Your task to perform on an android device: turn on location history Image 0: 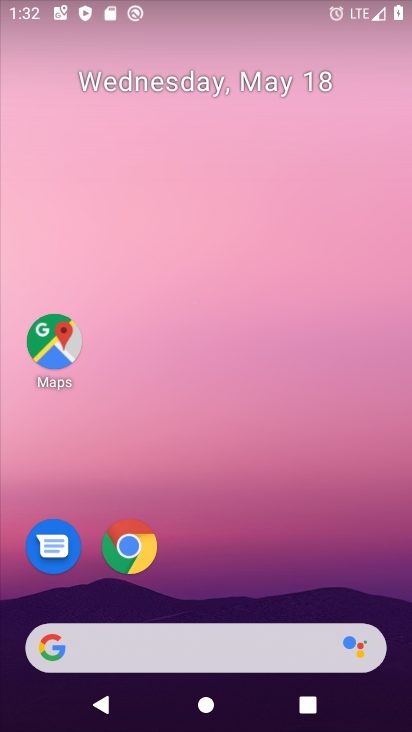
Step 0: drag from (199, 587) to (231, 314)
Your task to perform on an android device: turn on location history Image 1: 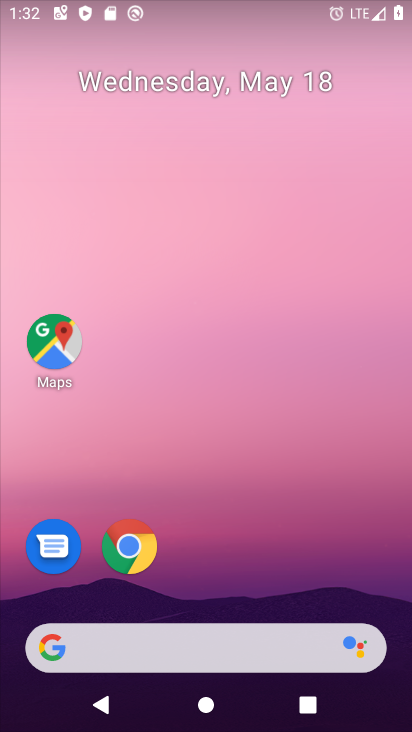
Step 1: drag from (209, 689) to (236, 170)
Your task to perform on an android device: turn on location history Image 2: 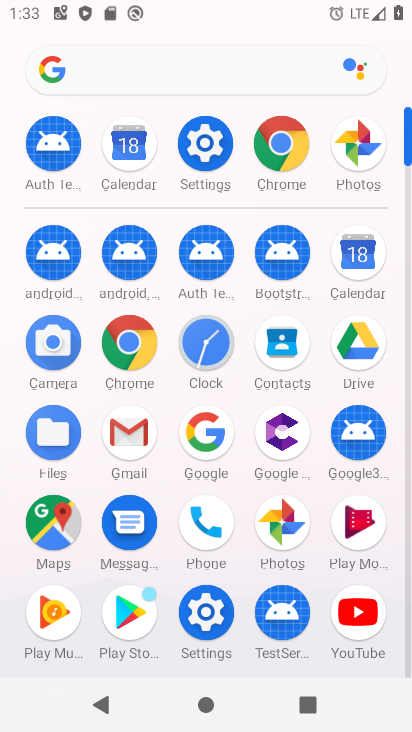
Step 2: click (205, 167)
Your task to perform on an android device: turn on location history Image 3: 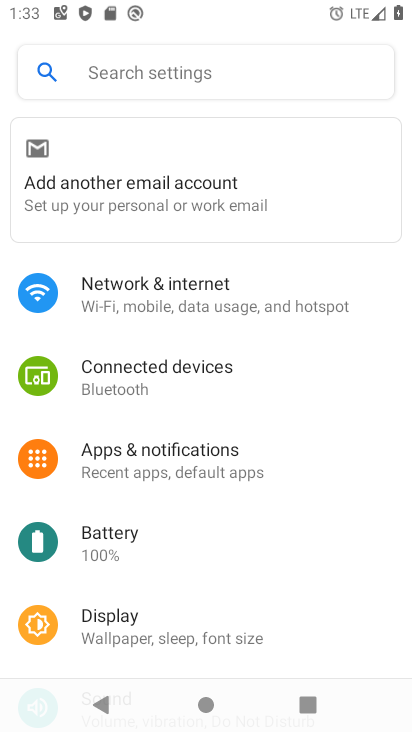
Step 3: drag from (209, 453) to (210, 322)
Your task to perform on an android device: turn on location history Image 4: 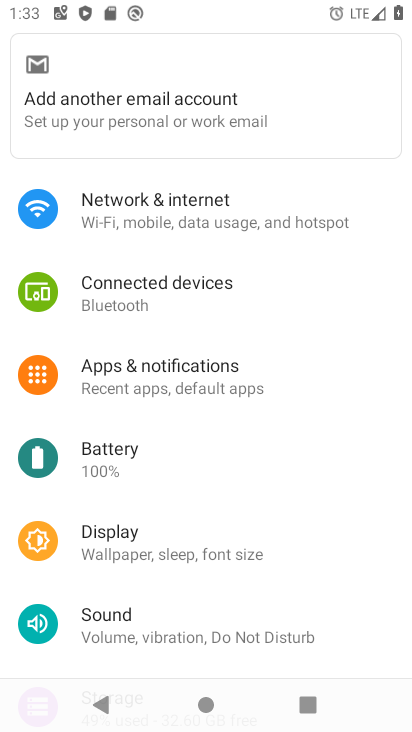
Step 4: drag from (186, 419) to (181, 304)
Your task to perform on an android device: turn on location history Image 5: 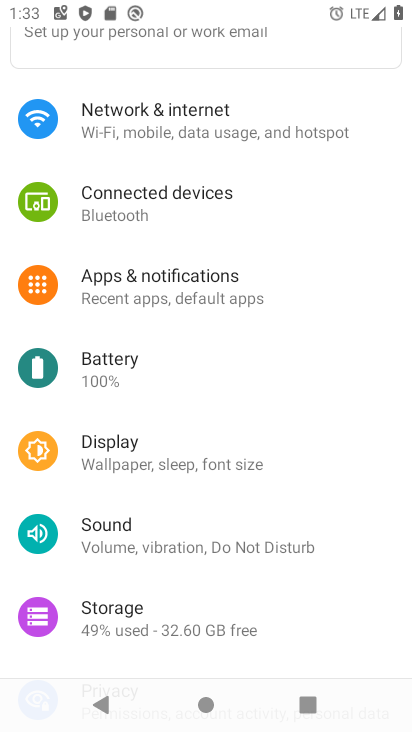
Step 5: drag from (159, 501) to (159, 355)
Your task to perform on an android device: turn on location history Image 6: 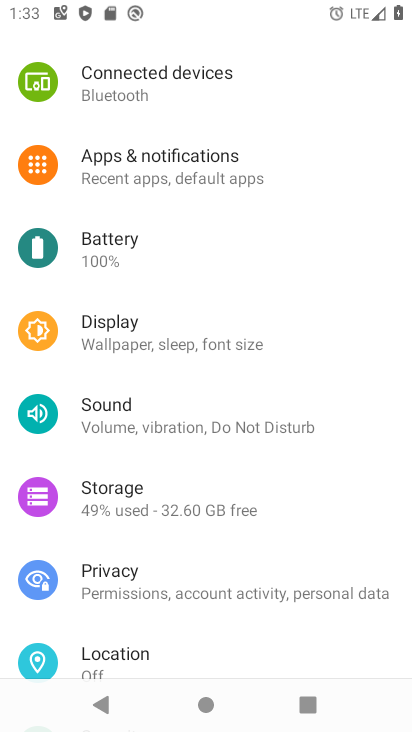
Step 6: drag from (165, 516) to (166, 300)
Your task to perform on an android device: turn on location history Image 7: 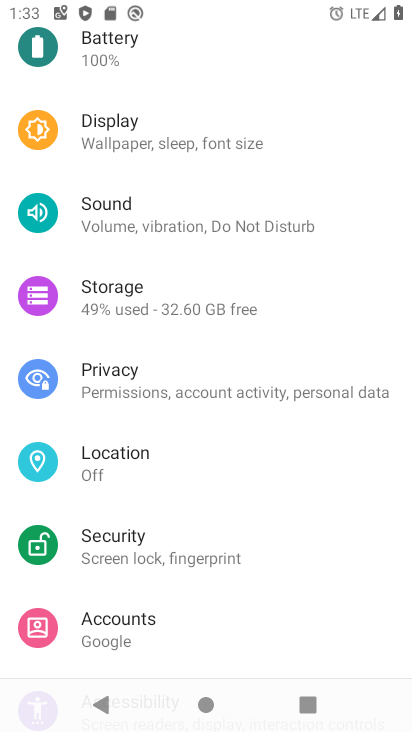
Step 7: click (167, 478)
Your task to perform on an android device: turn on location history Image 8: 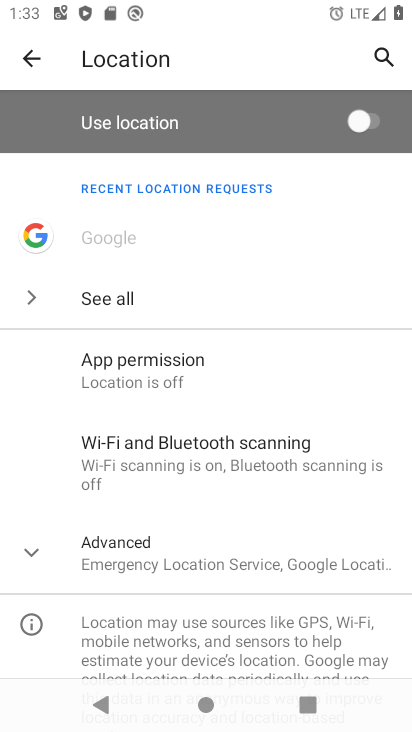
Step 8: click (221, 570)
Your task to perform on an android device: turn on location history Image 9: 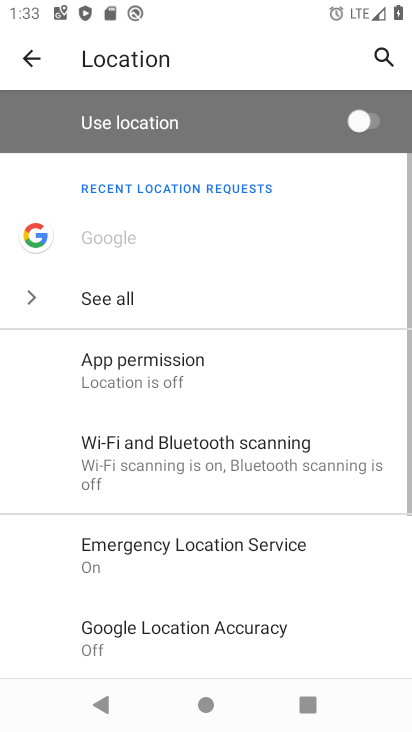
Step 9: drag from (220, 569) to (188, 343)
Your task to perform on an android device: turn on location history Image 10: 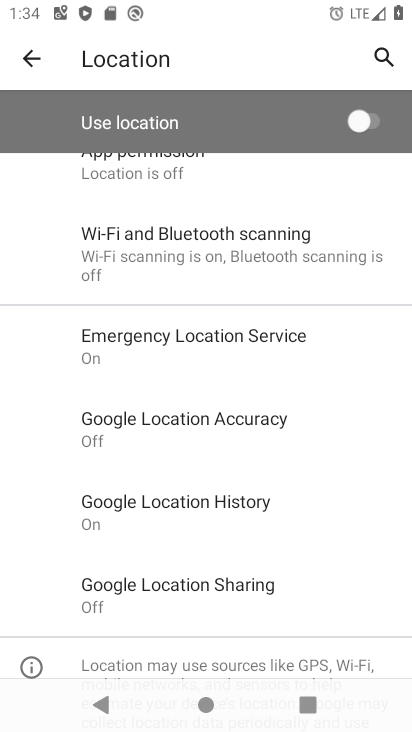
Step 10: click (169, 523)
Your task to perform on an android device: turn on location history Image 11: 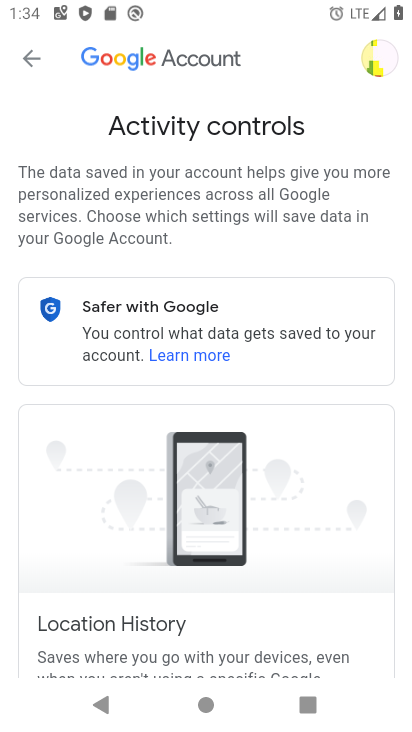
Step 11: drag from (295, 479) to (143, 235)
Your task to perform on an android device: turn on location history Image 12: 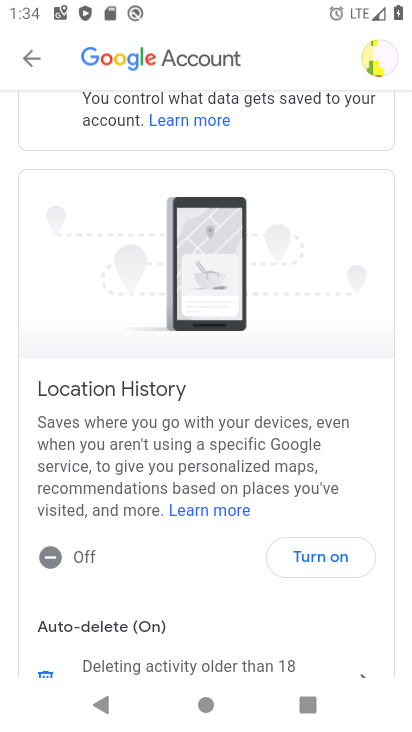
Step 12: click (321, 567)
Your task to perform on an android device: turn on location history Image 13: 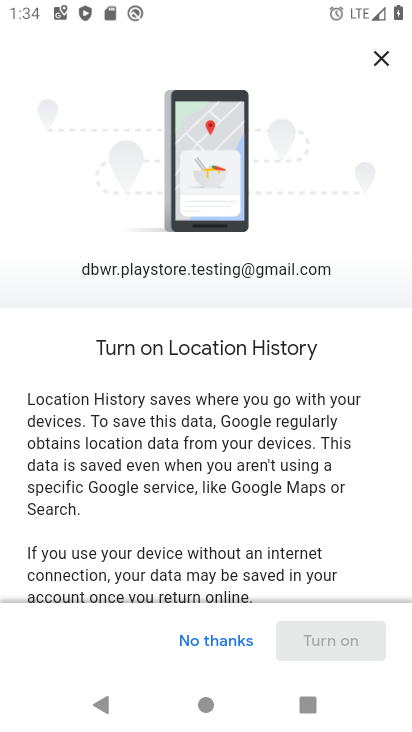
Step 13: drag from (321, 563) to (282, 316)
Your task to perform on an android device: turn on location history Image 14: 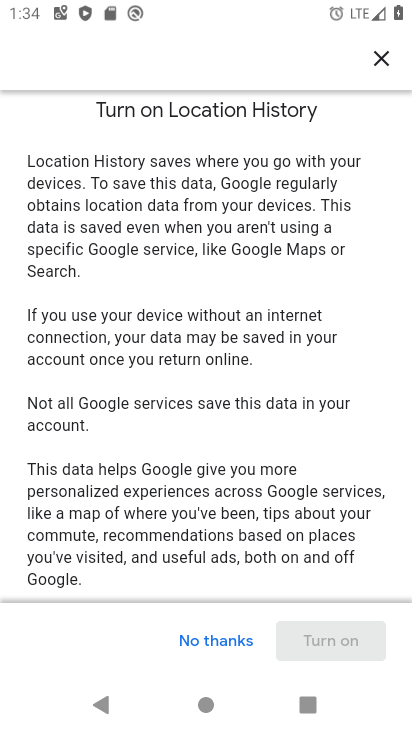
Step 14: click (312, 409)
Your task to perform on an android device: turn on location history Image 15: 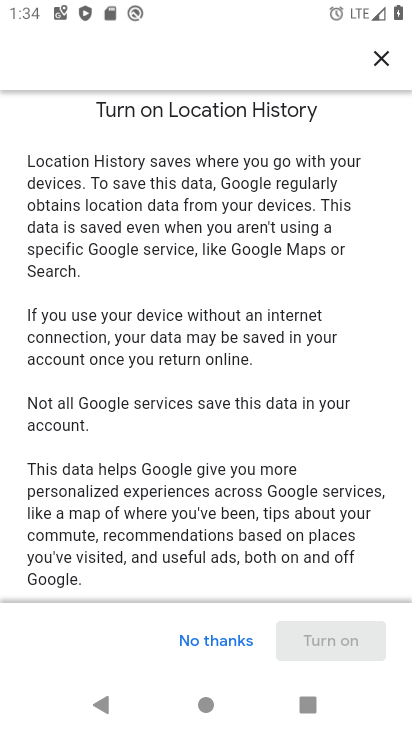
Step 15: drag from (294, 507) to (141, 8)
Your task to perform on an android device: turn on location history Image 16: 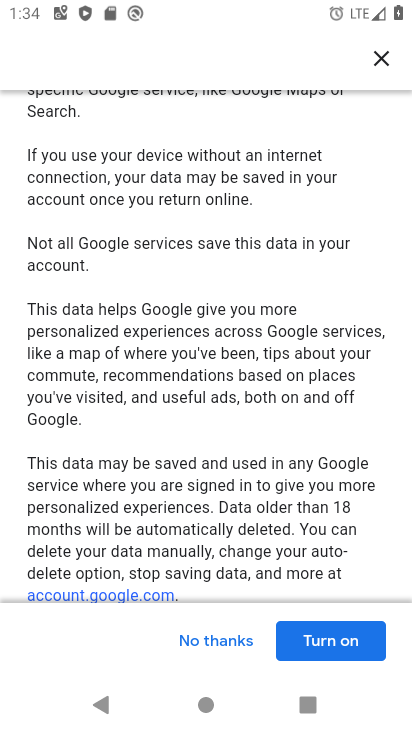
Step 16: click (331, 649)
Your task to perform on an android device: turn on location history Image 17: 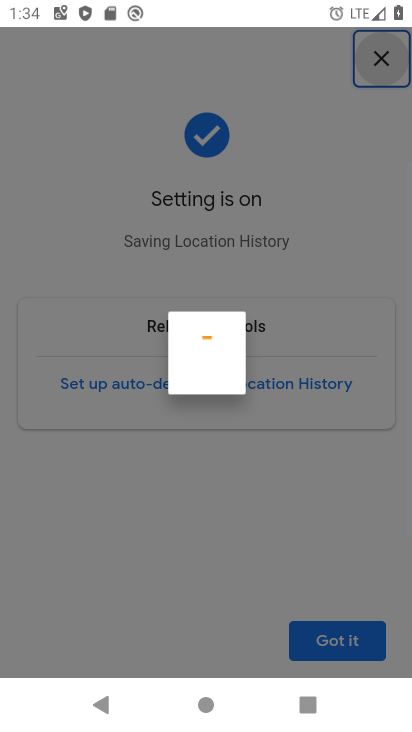
Step 17: task complete